Your task to perform on an android device: Open Maps and search for coffee Image 0: 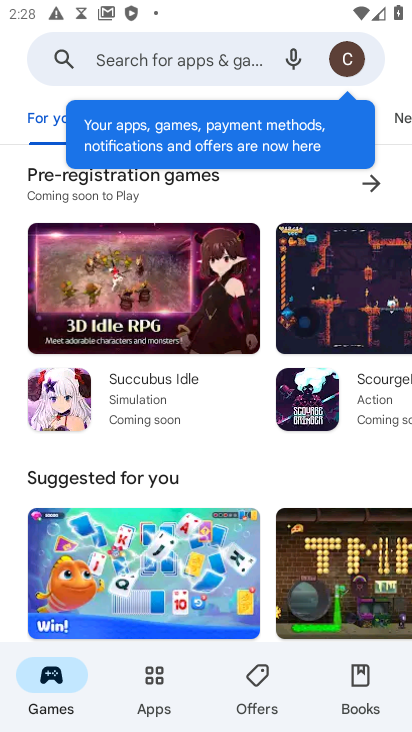
Step 0: press home button
Your task to perform on an android device: Open Maps and search for coffee Image 1: 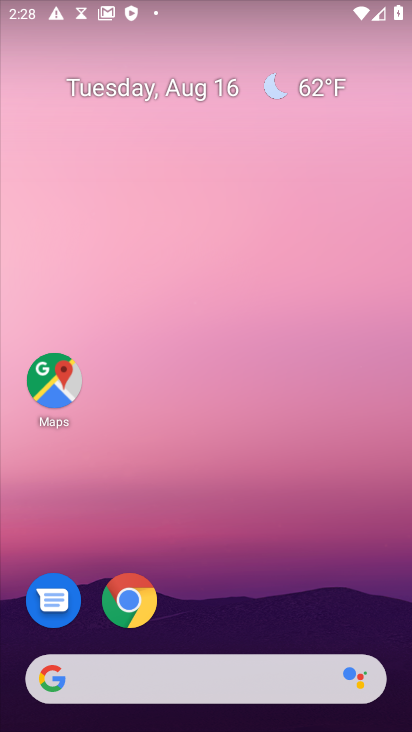
Step 1: click (35, 378)
Your task to perform on an android device: Open Maps and search for coffee Image 2: 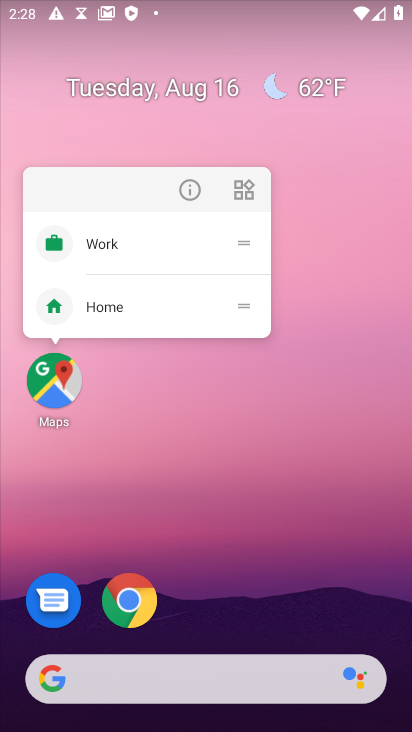
Step 2: click (82, 374)
Your task to perform on an android device: Open Maps and search for coffee Image 3: 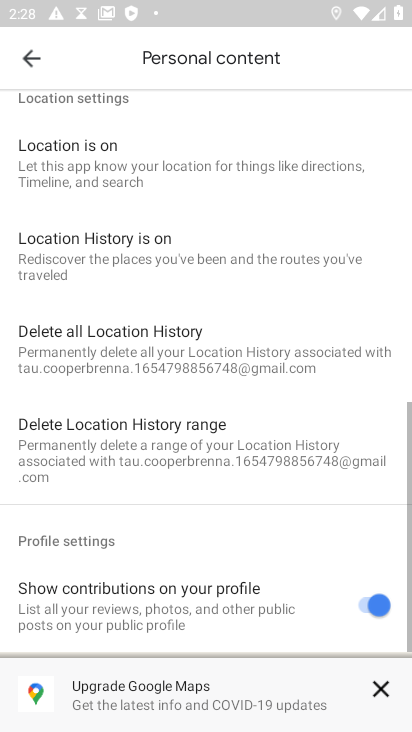
Step 3: drag from (32, 66) to (90, 66)
Your task to perform on an android device: Open Maps and search for coffee Image 4: 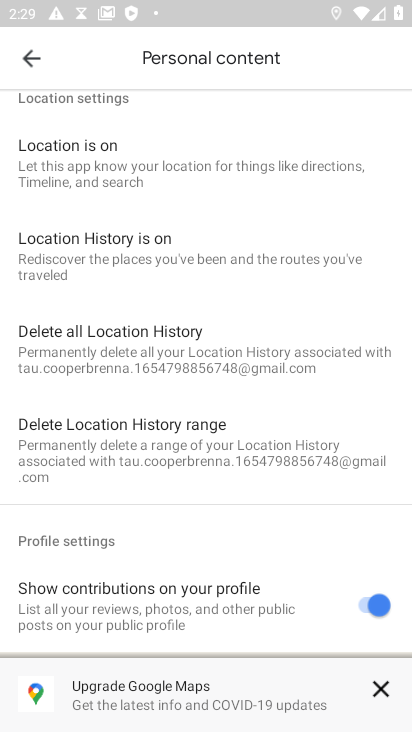
Step 4: click (38, 59)
Your task to perform on an android device: Open Maps and search for coffee Image 5: 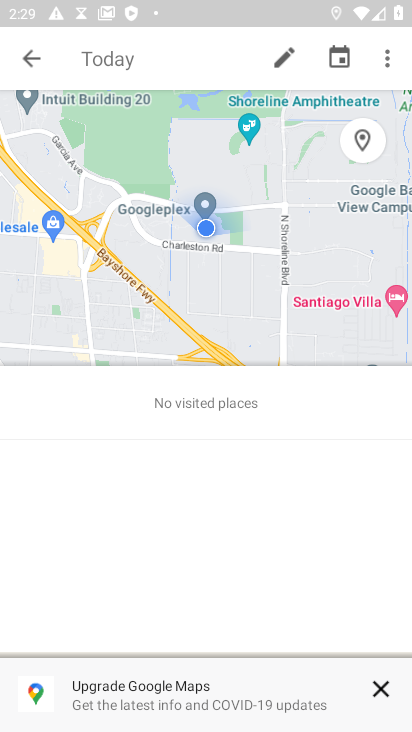
Step 5: click (38, 59)
Your task to perform on an android device: Open Maps and search for coffee Image 6: 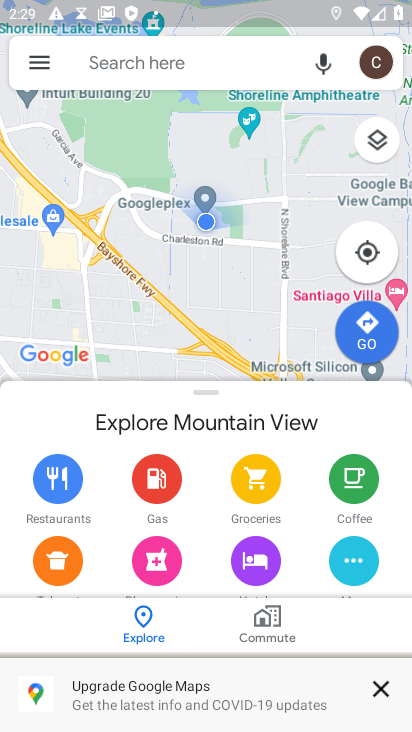
Step 6: click (175, 71)
Your task to perform on an android device: Open Maps and search for coffee Image 7: 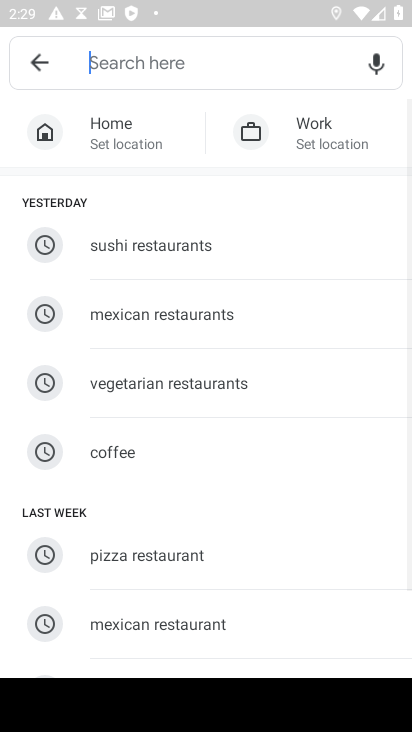
Step 7: click (170, 456)
Your task to perform on an android device: Open Maps and search for coffee Image 8: 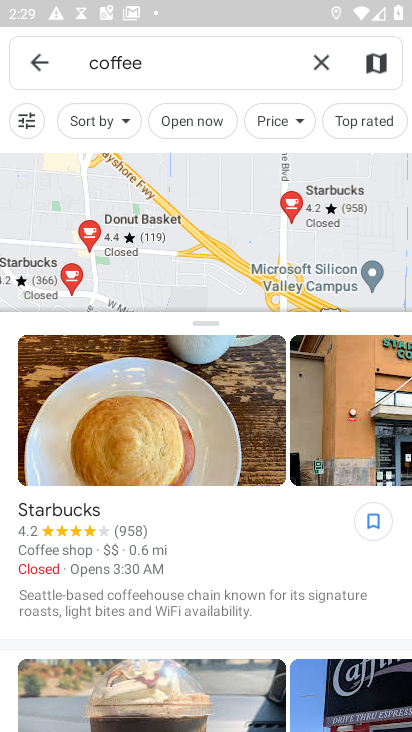
Step 8: task complete